Your task to perform on an android device: find snoozed emails in the gmail app Image 0: 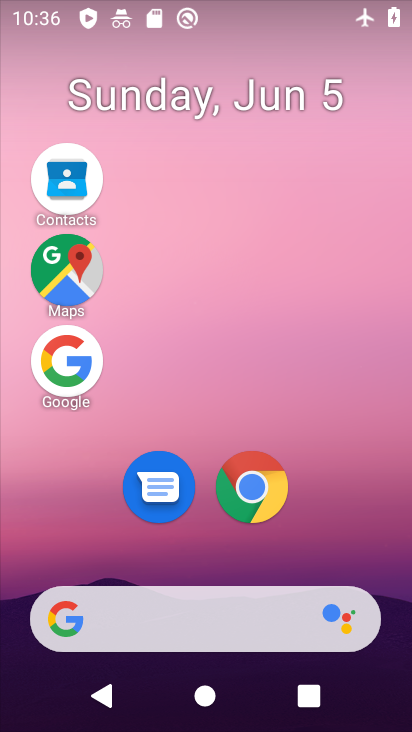
Step 0: drag from (209, 605) to (239, 106)
Your task to perform on an android device: find snoozed emails in the gmail app Image 1: 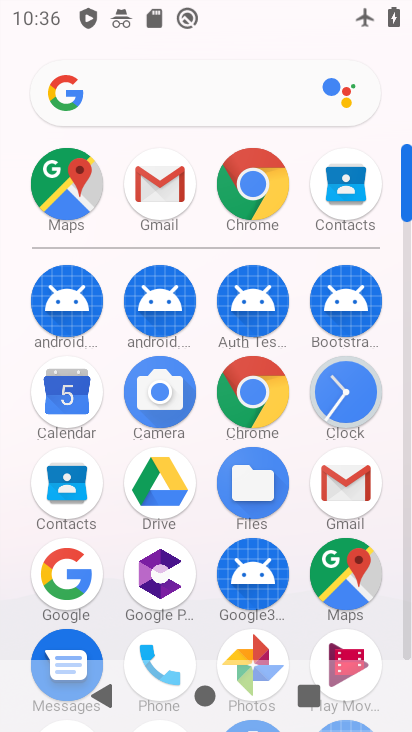
Step 1: click (330, 484)
Your task to perform on an android device: find snoozed emails in the gmail app Image 2: 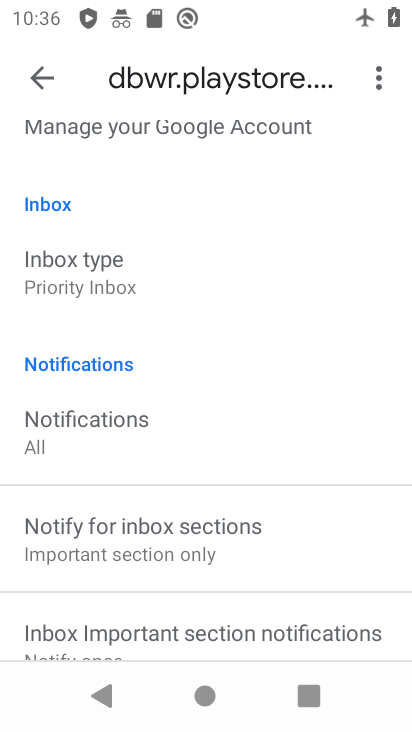
Step 2: click (41, 79)
Your task to perform on an android device: find snoozed emails in the gmail app Image 3: 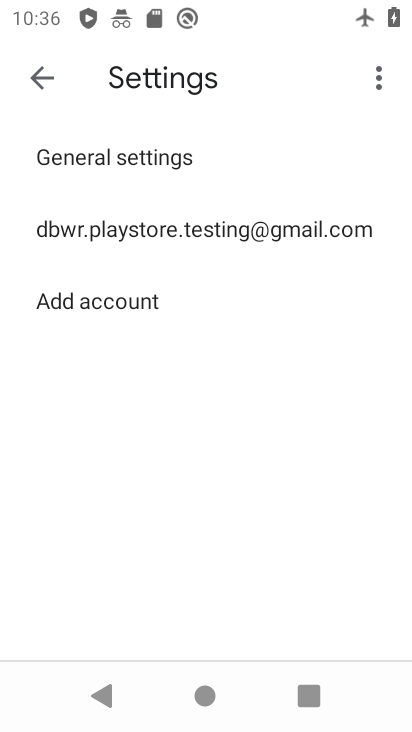
Step 3: click (39, 77)
Your task to perform on an android device: find snoozed emails in the gmail app Image 4: 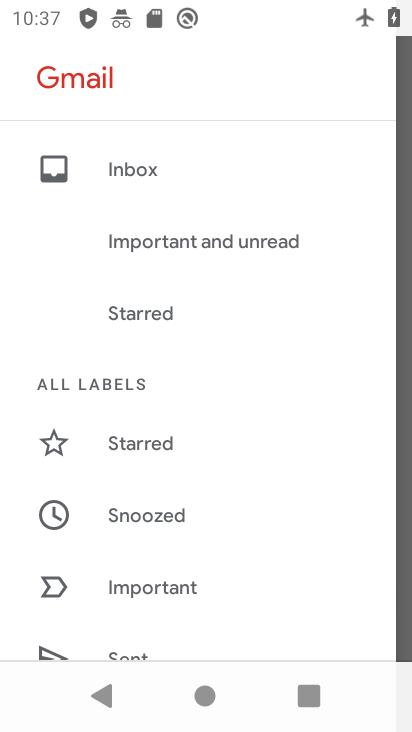
Step 4: click (163, 521)
Your task to perform on an android device: find snoozed emails in the gmail app Image 5: 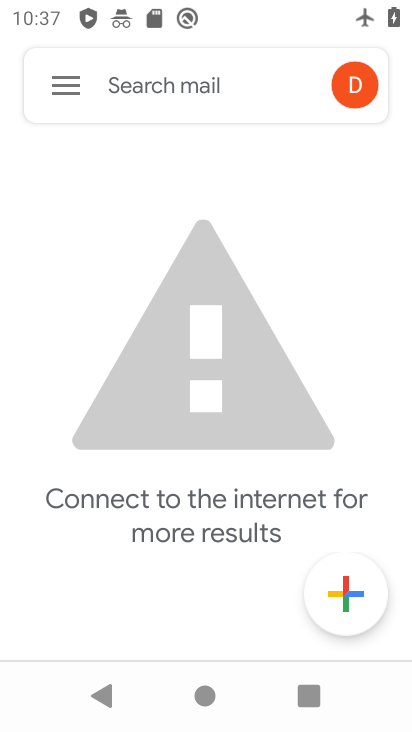
Step 5: task complete